Your task to perform on an android device: Open the map Image 0: 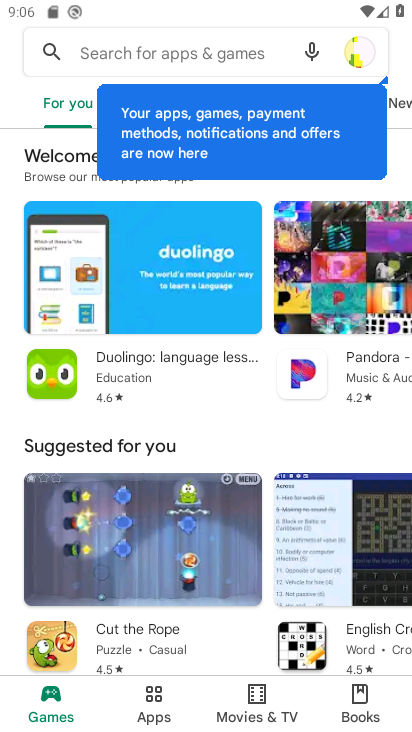
Step 0: press home button
Your task to perform on an android device: Open the map Image 1: 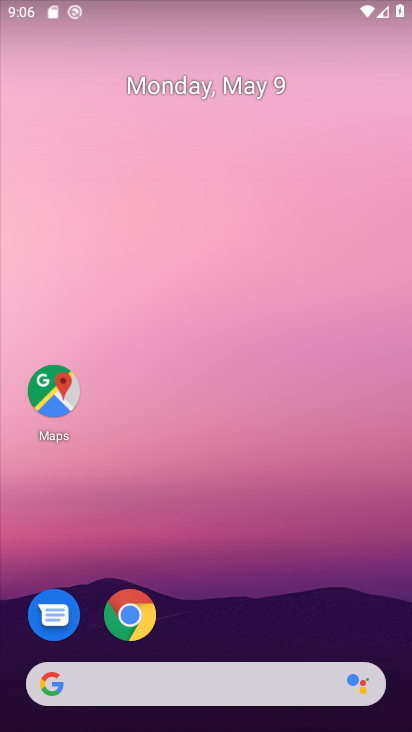
Step 1: drag from (213, 719) to (339, 266)
Your task to perform on an android device: Open the map Image 2: 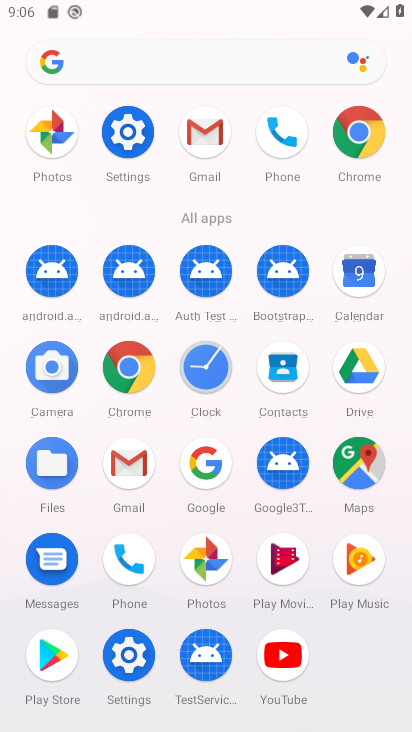
Step 2: click (345, 470)
Your task to perform on an android device: Open the map Image 3: 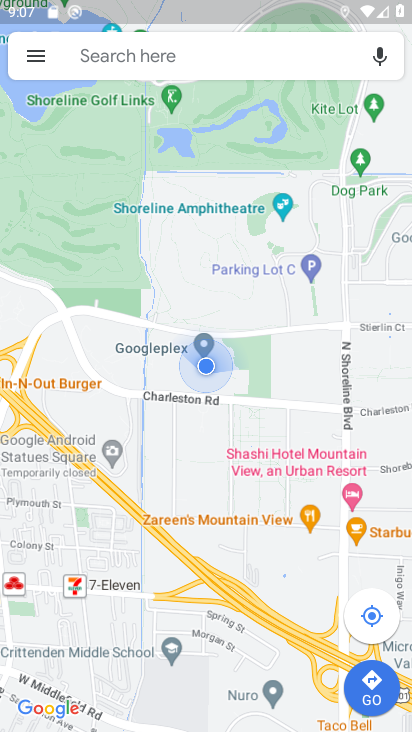
Step 3: task complete